Your task to perform on an android device: toggle translation in the chrome app Image 0: 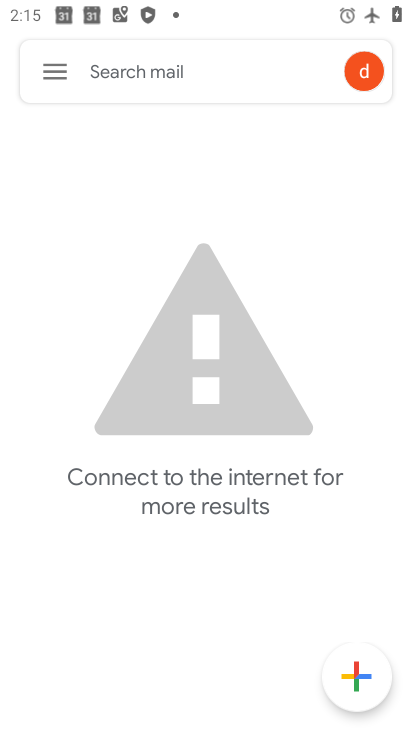
Step 0: press home button
Your task to perform on an android device: toggle translation in the chrome app Image 1: 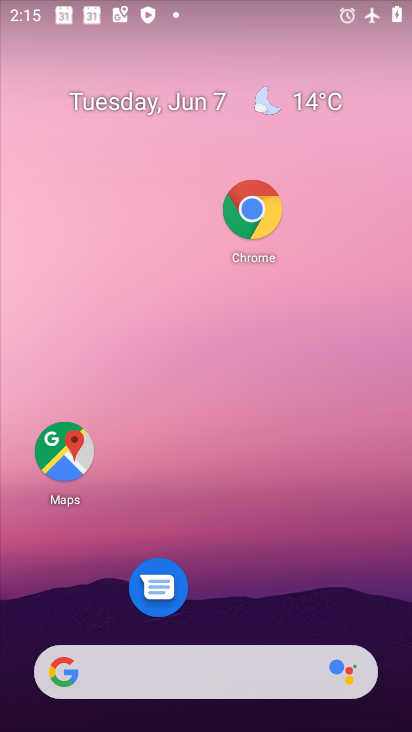
Step 1: drag from (251, 638) to (274, 219)
Your task to perform on an android device: toggle translation in the chrome app Image 2: 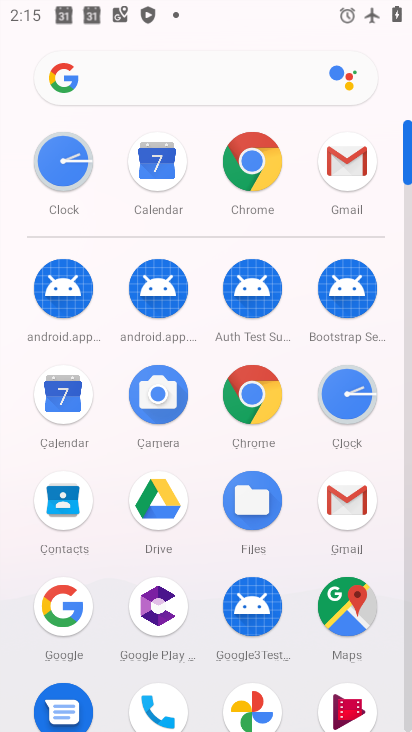
Step 2: click (254, 399)
Your task to perform on an android device: toggle translation in the chrome app Image 3: 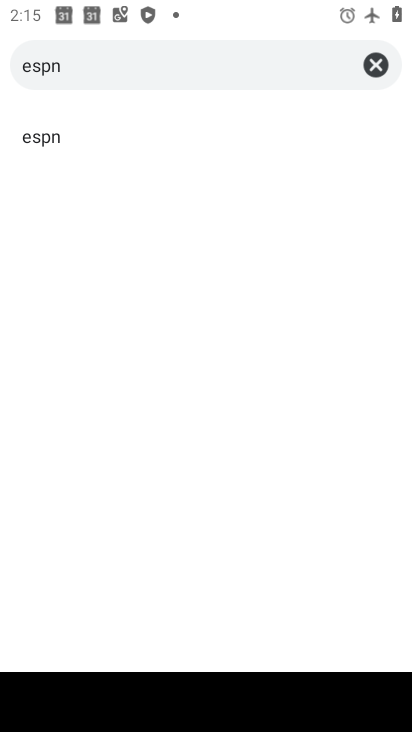
Step 3: press back button
Your task to perform on an android device: toggle translation in the chrome app Image 4: 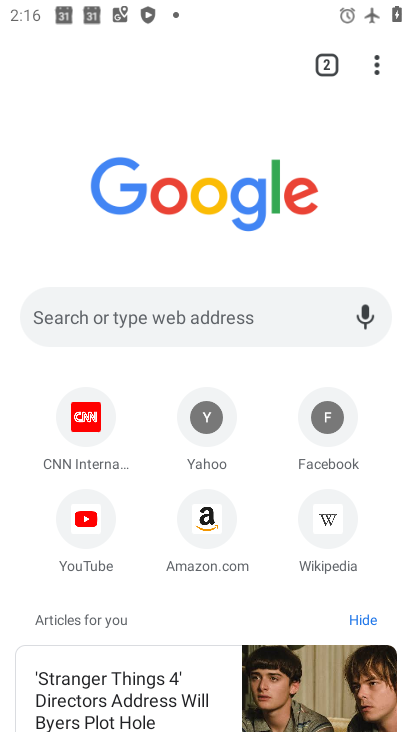
Step 4: click (392, 34)
Your task to perform on an android device: toggle translation in the chrome app Image 5: 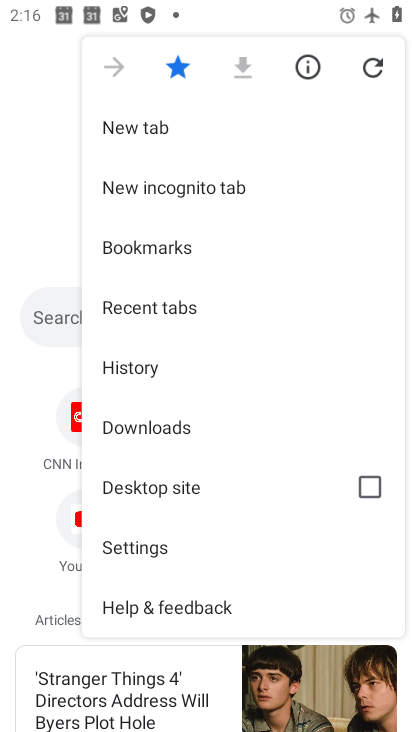
Step 5: task complete